Your task to perform on an android device: Open the calendar app, open the side menu, and click the "Day" option Image 0: 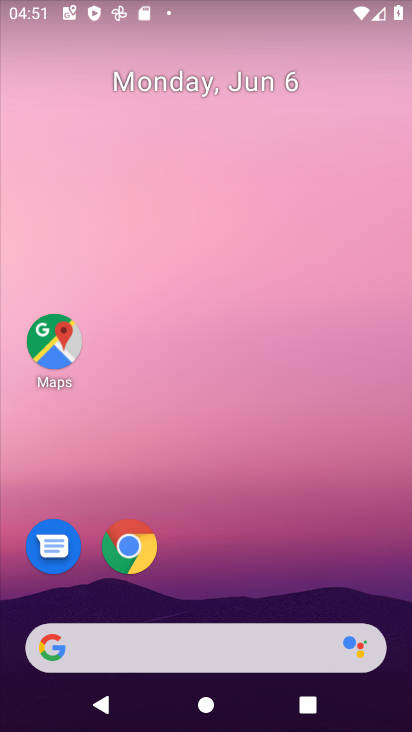
Step 0: drag from (277, 535) to (285, 223)
Your task to perform on an android device: Open the calendar app, open the side menu, and click the "Day" option Image 1: 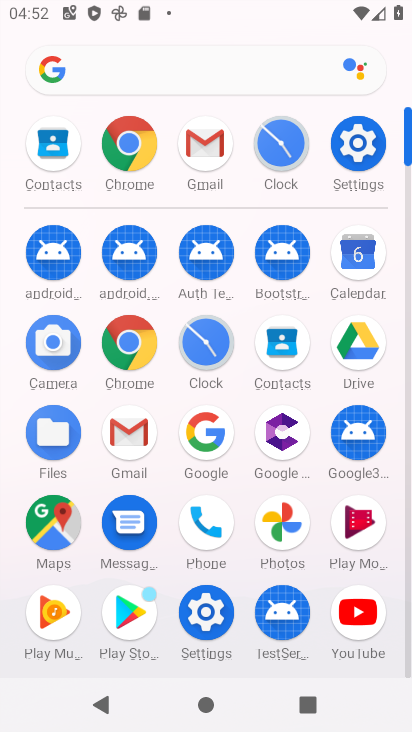
Step 1: click (370, 273)
Your task to perform on an android device: Open the calendar app, open the side menu, and click the "Day" option Image 2: 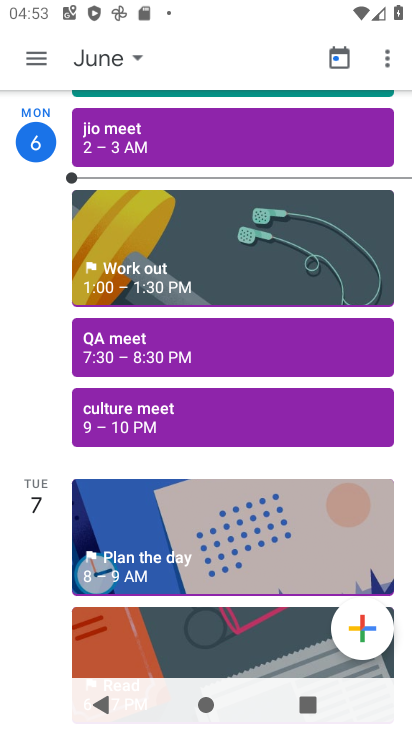
Step 2: click (28, 60)
Your task to perform on an android device: Open the calendar app, open the side menu, and click the "Day" option Image 3: 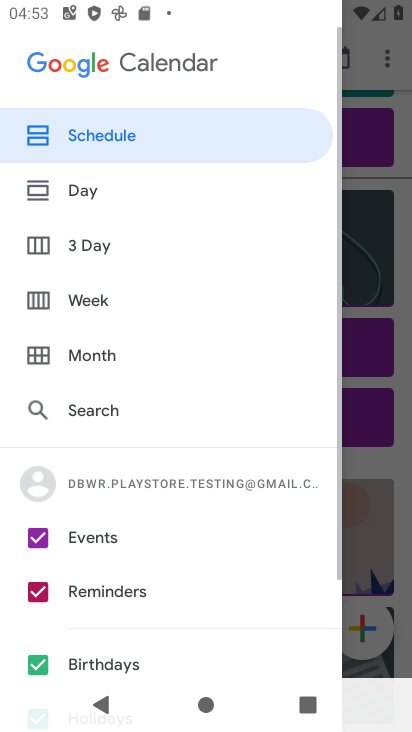
Step 3: click (75, 186)
Your task to perform on an android device: Open the calendar app, open the side menu, and click the "Day" option Image 4: 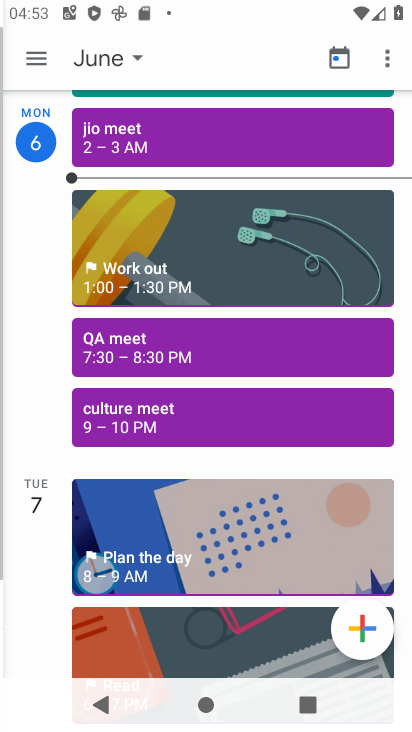
Step 4: task complete